Your task to perform on an android device: open wifi settings Image 0: 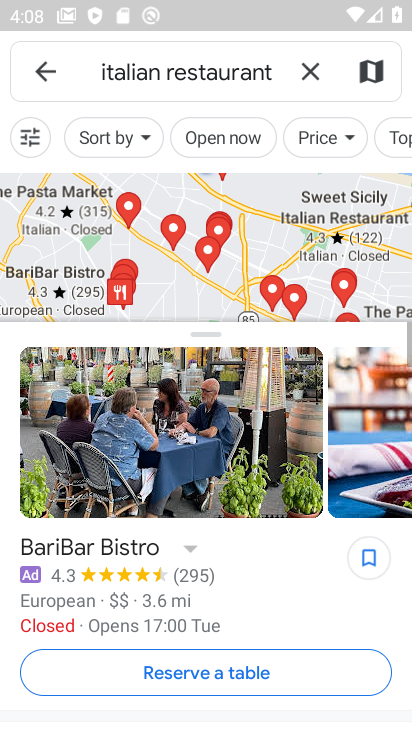
Step 0: press home button
Your task to perform on an android device: open wifi settings Image 1: 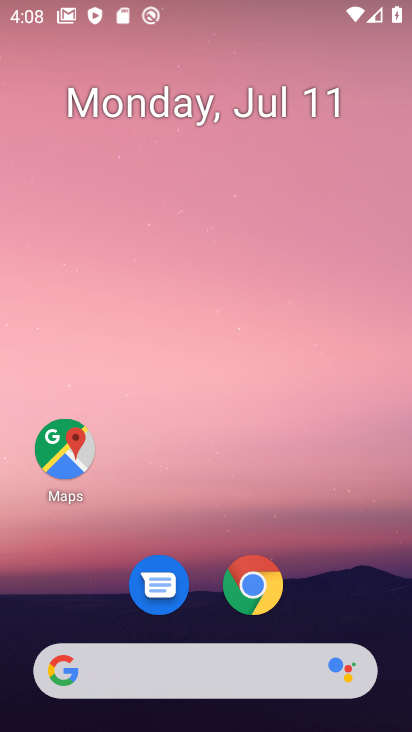
Step 1: drag from (231, 494) to (194, 0)
Your task to perform on an android device: open wifi settings Image 2: 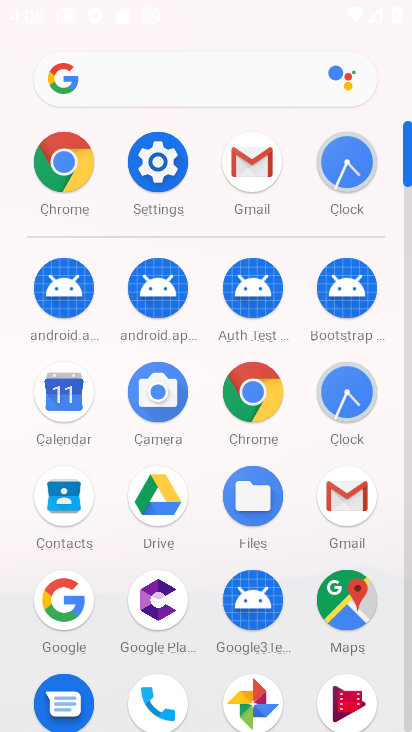
Step 2: click (148, 167)
Your task to perform on an android device: open wifi settings Image 3: 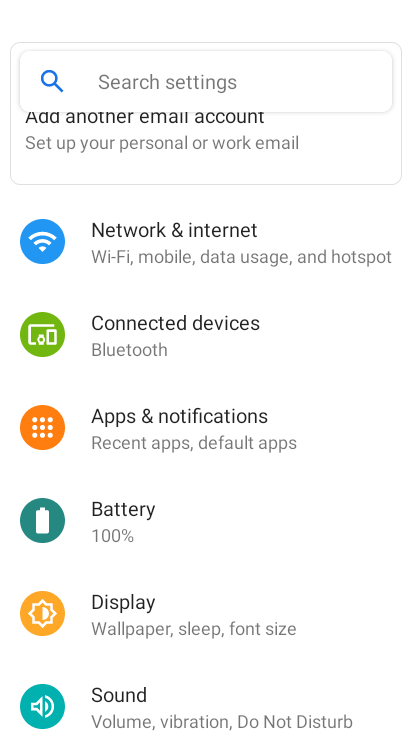
Step 3: click (208, 231)
Your task to perform on an android device: open wifi settings Image 4: 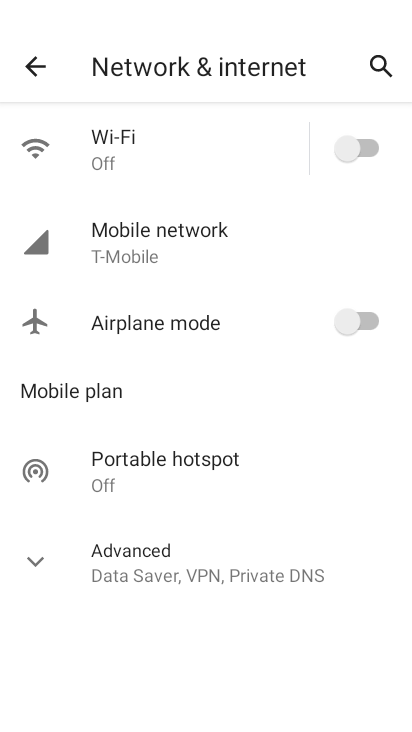
Step 4: click (128, 143)
Your task to perform on an android device: open wifi settings Image 5: 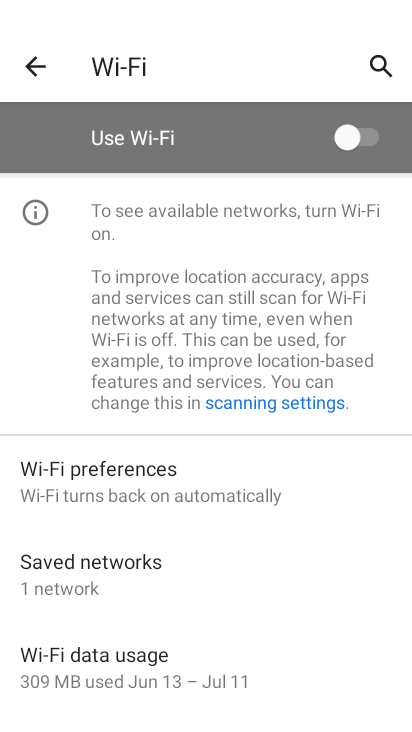
Step 5: task complete